Your task to perform on an android device: Open the stopwatch Image 0: 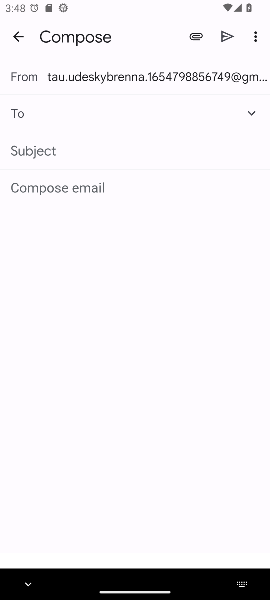
Step 0: press home button
Your task to perform on an android device: Open the stopwatch Image 1: 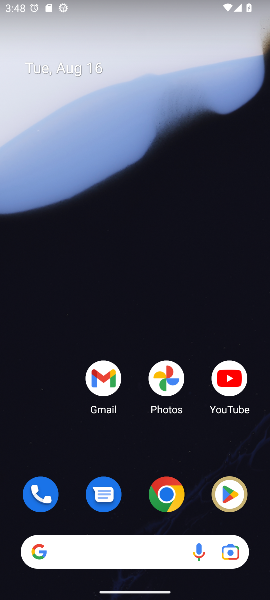
Step 1: drag from (124, 526) to (229, 22)
Your task to perform on an android device: Open the stopwatch Image 2: 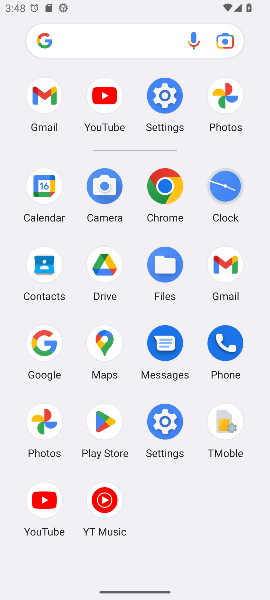
Step 2: click (217, 187)
Your task to perform on an android device: Open the stopwatch Image 3: 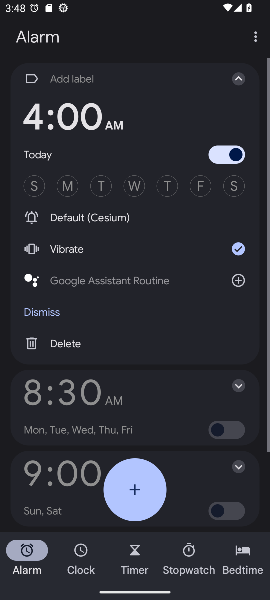
Step 3: click (198, 548)
Your task to perform on an android device: Open the stopwatch Image 4: 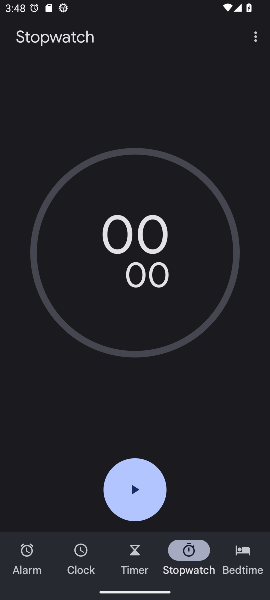
Step 4: task complete